Your task to perform on an android device: delete location history Image 0: 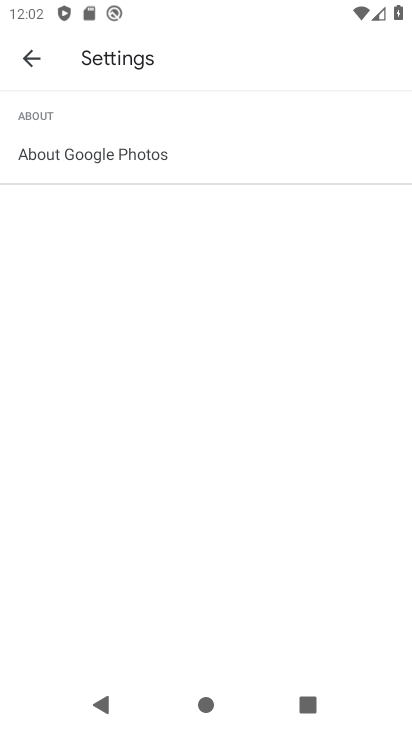
Step 0: press home button
Your task to perform on an android device: delete location history Image 1: 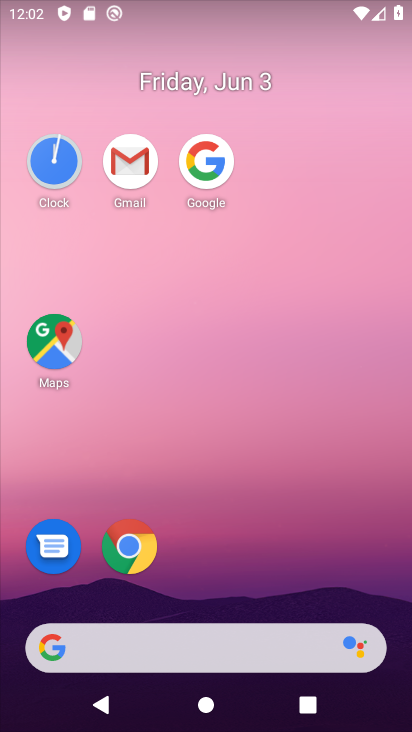
Step 1: drag from (258, 560) to (339, 136)
Your task to perform on an android device: delete location history Image 2: 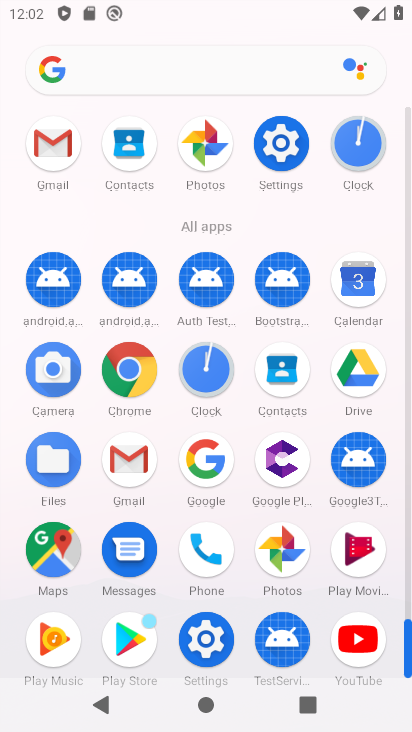
Step 2: drag from (269, 129) to (79, 270)
Your task to perform on an android device: delete location history Image 3: 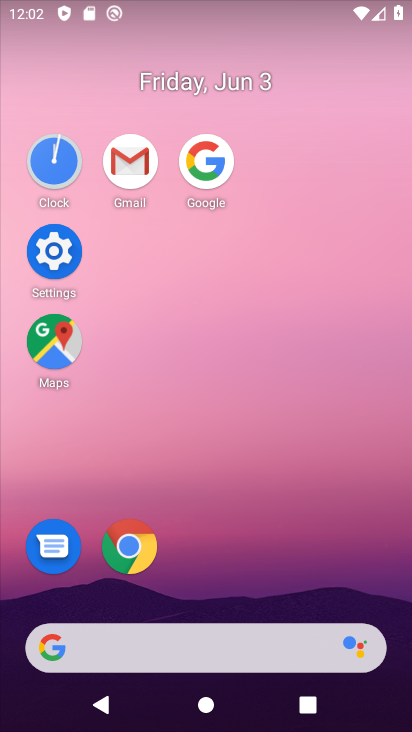
Step 3: click (68, 259)
Your task to perform on an android device: delete location history Image 4: 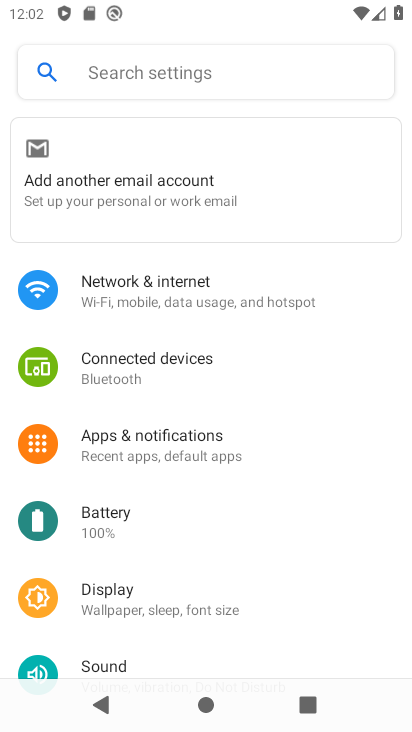
Step 4: drag from (219, 541) to (234, 205)
Your task to perform on an android device: delete location history Image 5: 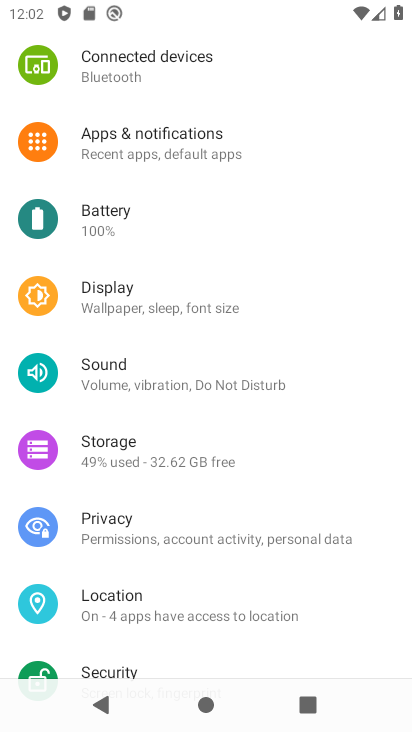
Step 5: click (189, 599)
Your task to perform on an android device: delete location history Image 6: 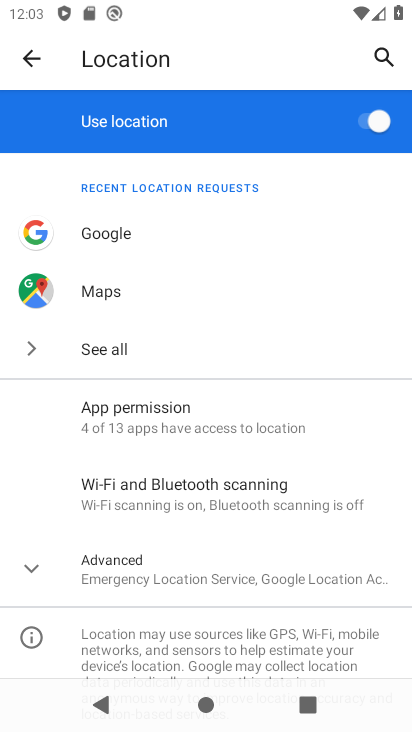
Step 6: click (152, 586)
Your task to perform on an android device: delete location history Image 7: 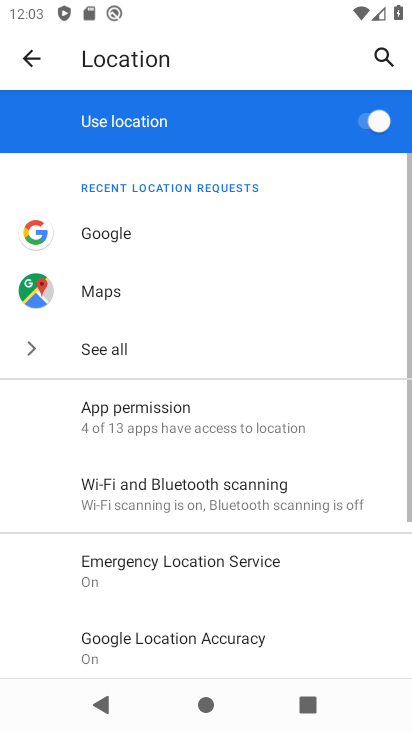
Step 7: drag from (152, 586) to (234, 187)
Your task to perform on an android device: delete location history Image 8: 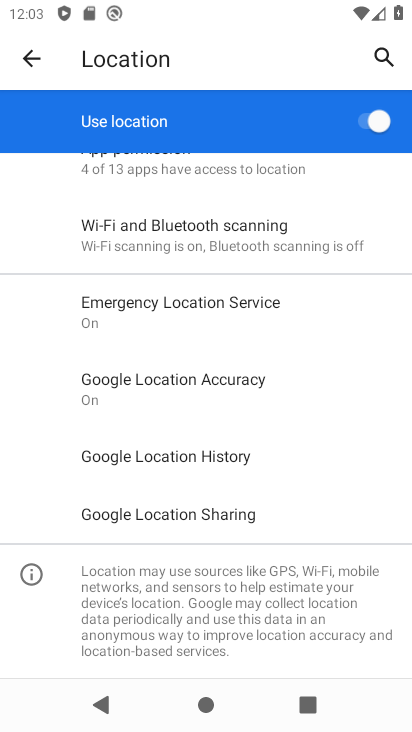
Step 8: click (247, 452)
Your task to perform on an android device: delete location history Image 9: 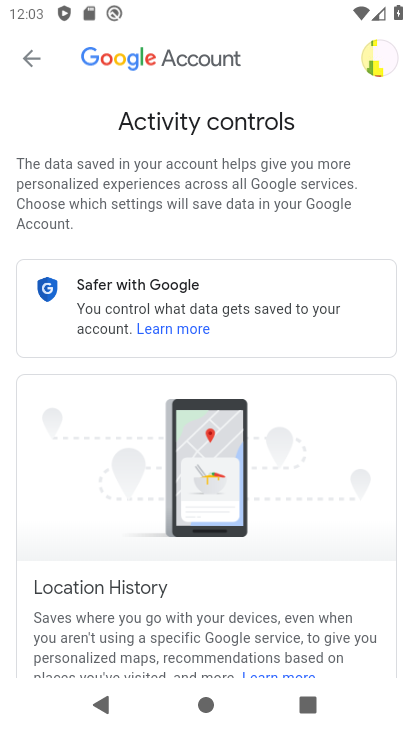
Step 9: drag from (269, 422) to (319, 113)
Your task to perform on an android device: delete location history Image 10: 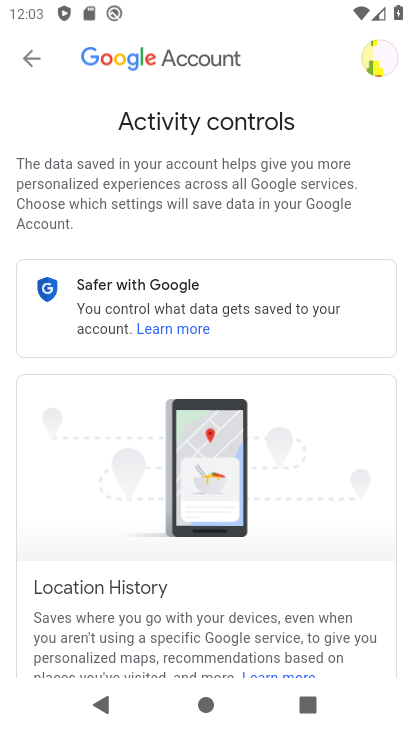
Step 10: drag from (295, 490) to (287, 191)
Your task to perform on an android device: delete location history Image 11: 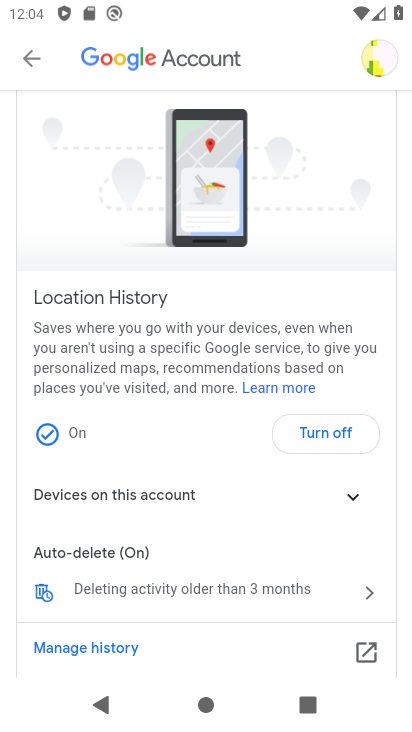
Step 11: click (344, 578)
Your task to perform on an android device: delete location history Image 12: 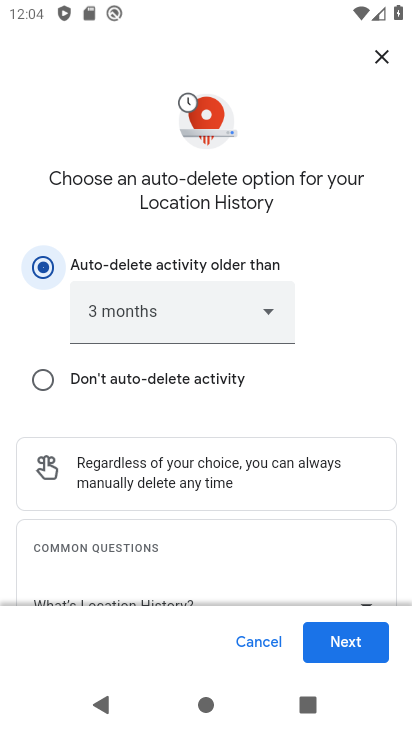
Step 12: drag from (314, 573) to (279, 215)
Your task to perform on an android device: delete location history Image 13: 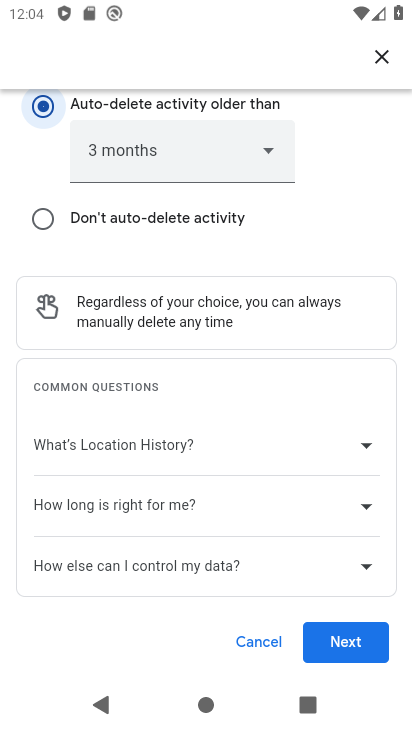
Step 13: click (337, 648)
Your task to perform on an android device: delete location history Image 14: 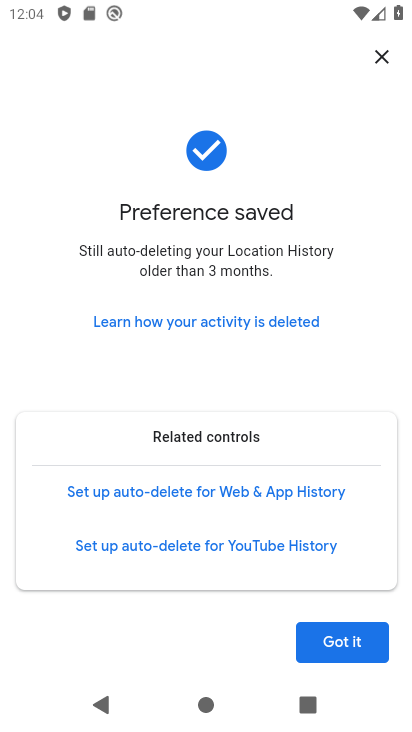
Step 14: click (366, 632)
Your task to perform on an android device: delete location history Image 15: 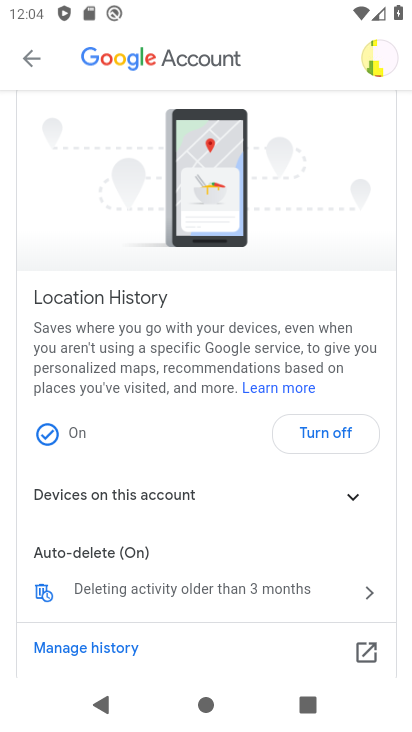
Step 15: task complete